Your task to perform on an android device: turn on the 12-hour format for clock Image 0: 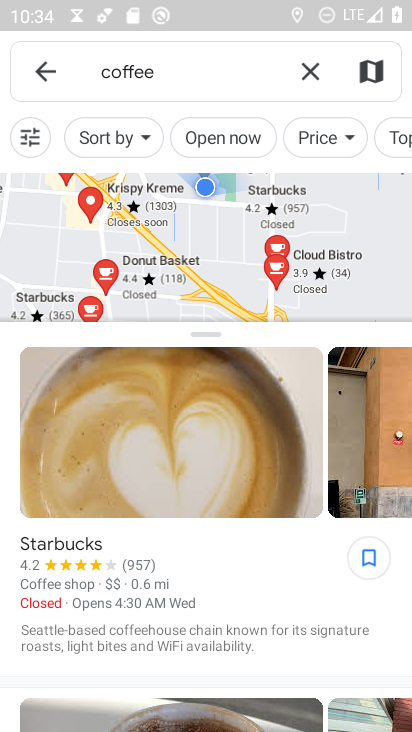
Step 0: press home button
Your task to perform on an android device: turn on the 12-hour format for clock Image 1: 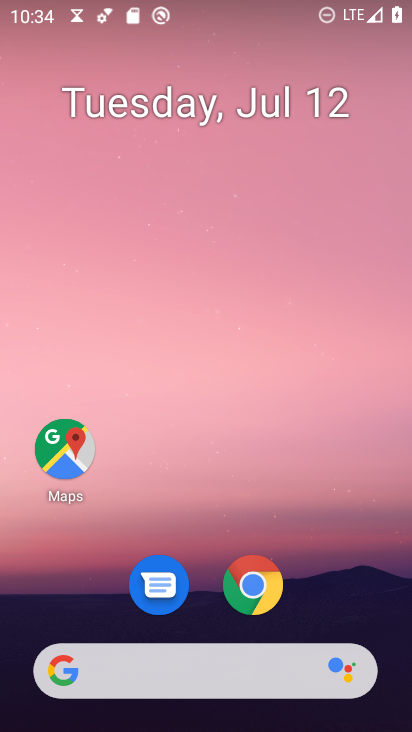
Step 1: drag from (174, 679) to (255, 131)
Your task to perform on an android device: turn on the 12-hour format for clock Image 2: 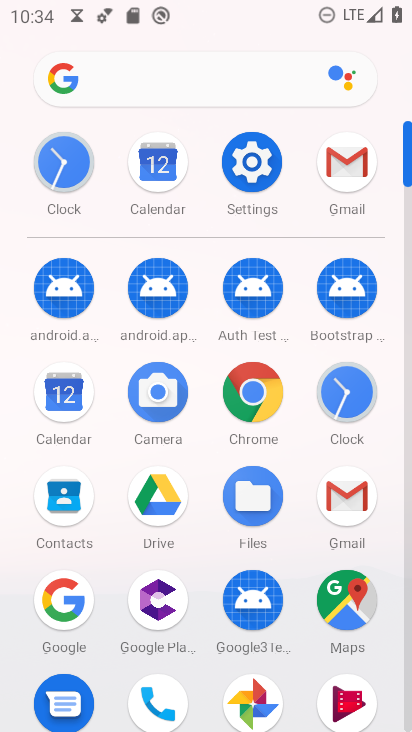
Step 2: click (333, 403)
Your task to perform on an android device: turn on the 12-hour format for clock Image 3: 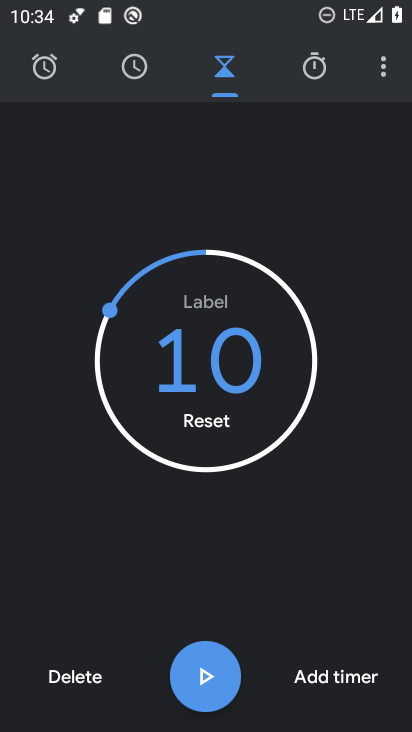
Step 3: click (380, 72)
Your task to perform on an android device: turn on the 12-hour format for clock Image 4: 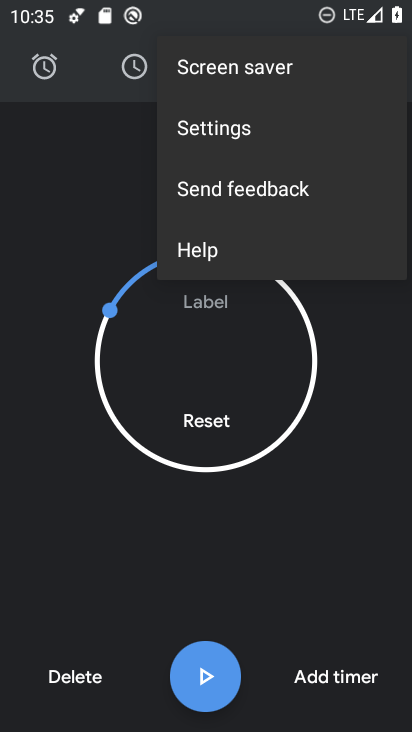
Step 4: click (217, 128)
Your task to perform on an android device: turn on the 12-hour format for clock Image 5: 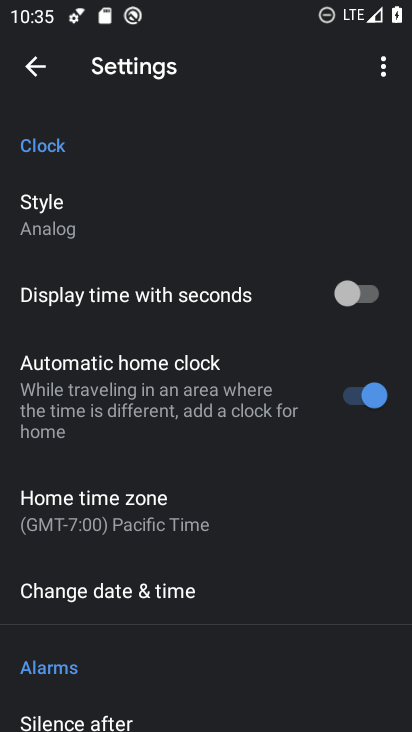
Step 5: click (155, 595)
Your task to perform on an android device: turn on the 12-hour format for clock Image 6: 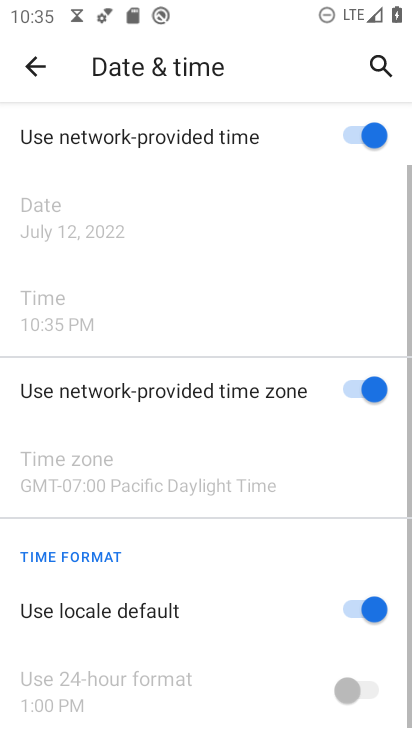
Step 6: task complete